Your task to perform on an android device: Open Chrome and go to settings Image 0: 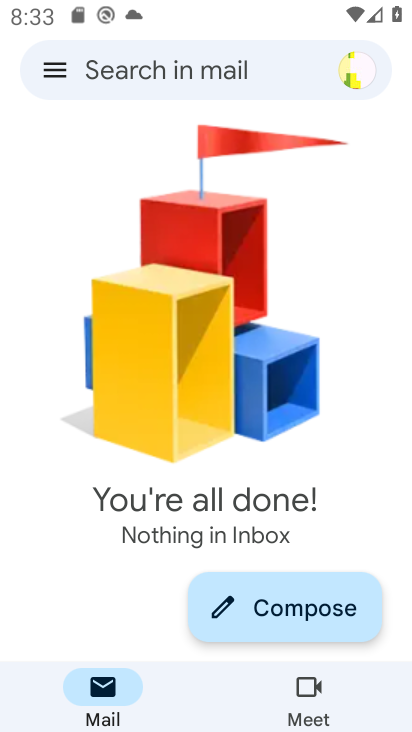
Step 0: press back button
Your task to perform on an android device: Open Chrome and go to settings Image 1: 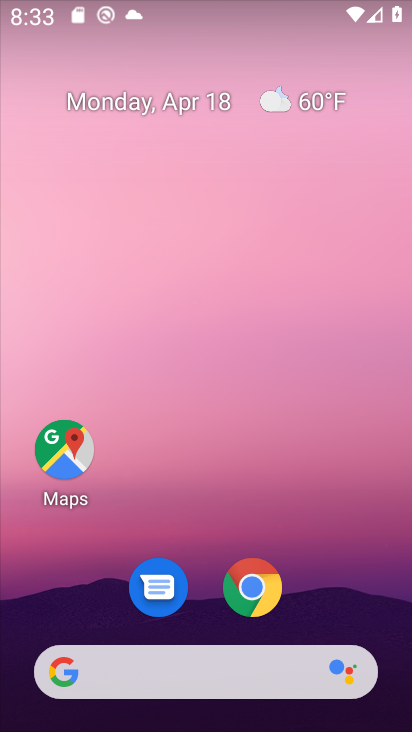
Step 1: click (256, 590)
Your task to perform on an android device: Open Chrome and go to settings Image 2: 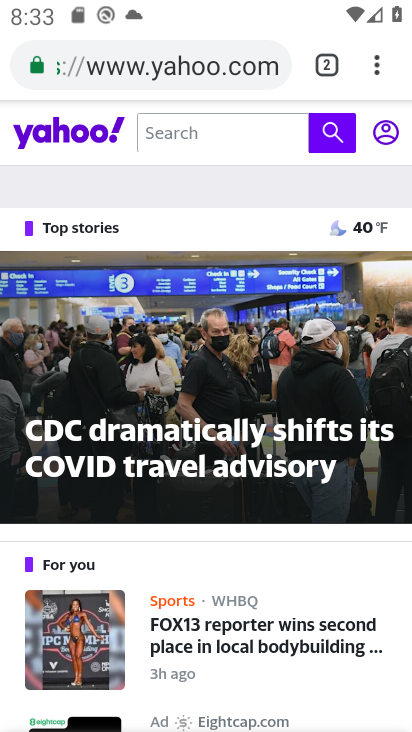
Step 2: click (375, 53)
Your task to perform on an android device: Open Chrome and go to settings Image 3: 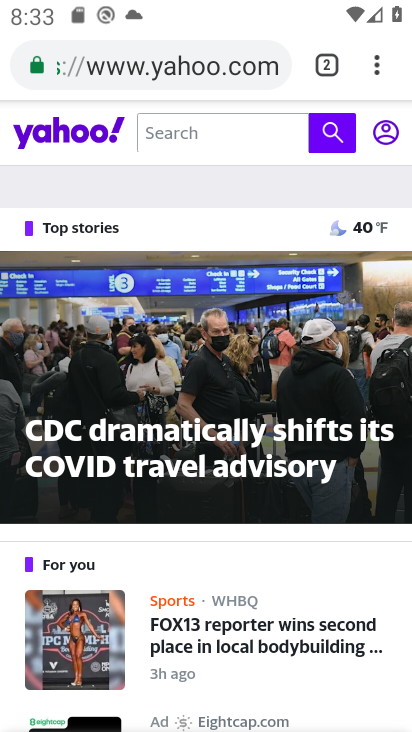
Step 3: click (375, 62)
Your task to perform on an android device: Open Chrome and go to settings Image 4: 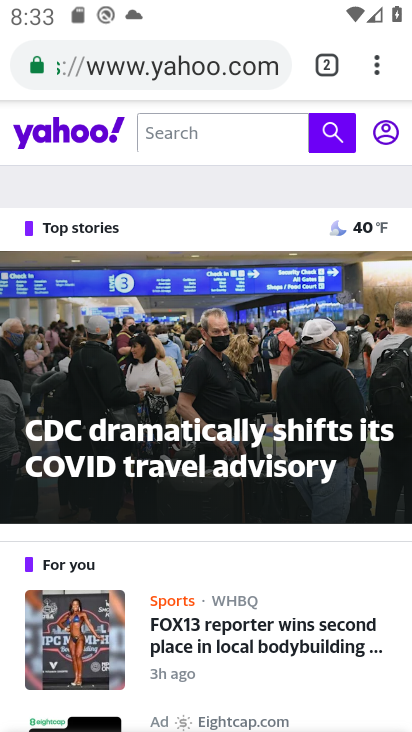
Step 4: click (368, 73)
Your task to perform on an android device: Open Chrome and go to settings Image 5: 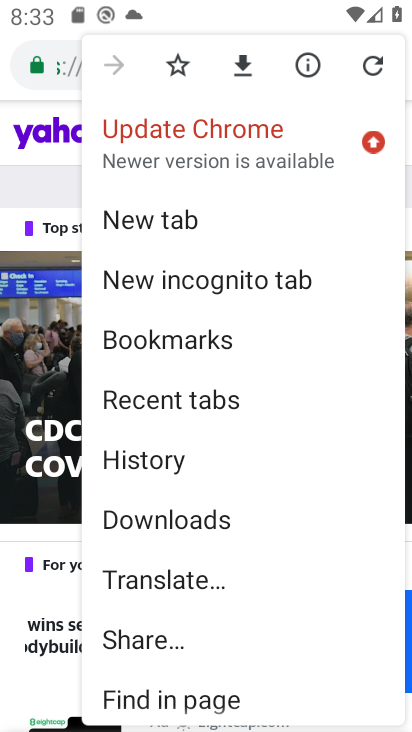
Step 5: drag from (165, 571) to (154, 374)
Your task to perform on an android device: Open Chrome and go to settings Image 6: 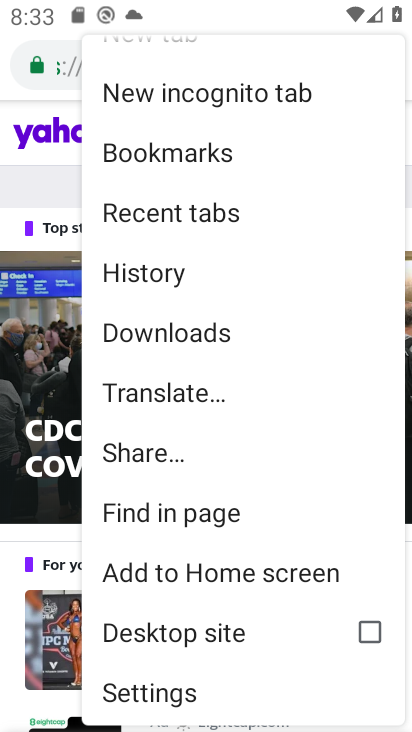
Step 6: click (191, 690)
Your task to perform on an android device: Open Chrome and go to settings Image 7: 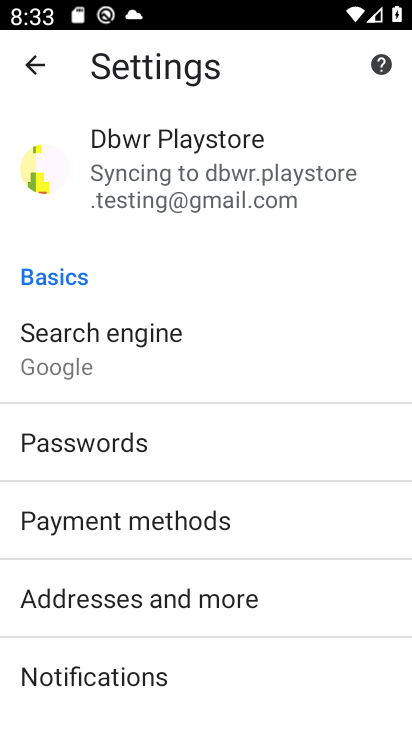
Step 7: task complete